Your task to perform on an android device: open the mobile data screen to see how much data has been used Image 0: 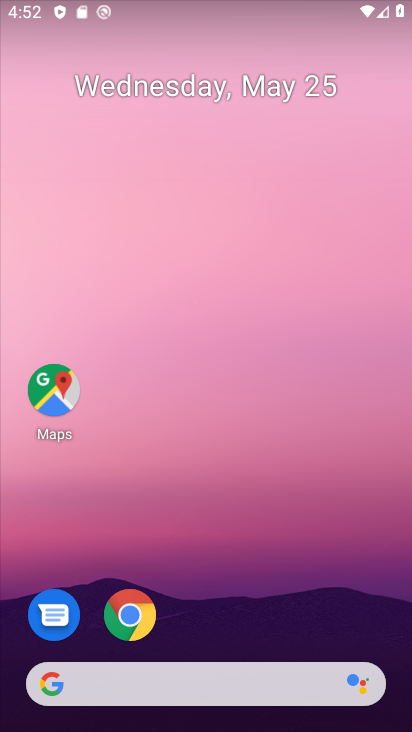
Step 0: drag from (250, 5) to (208, 718)
Your task to perform on an android device: open the mobile data screen to see how much data has been used Image 1: 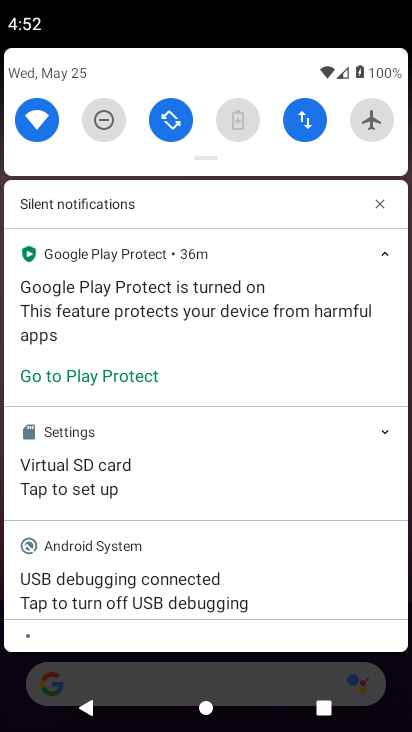
Step 1: click (316, 107)
Your task to perform on an android device: open the mobile data screen to see how much data has been used Image 2: 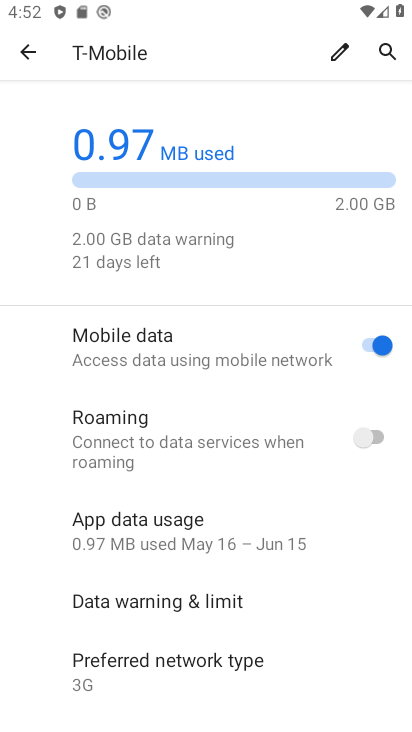
Step 2: task complete